Your task to perform on an android device: allow notifications from all sites in the chrome app Image 0: 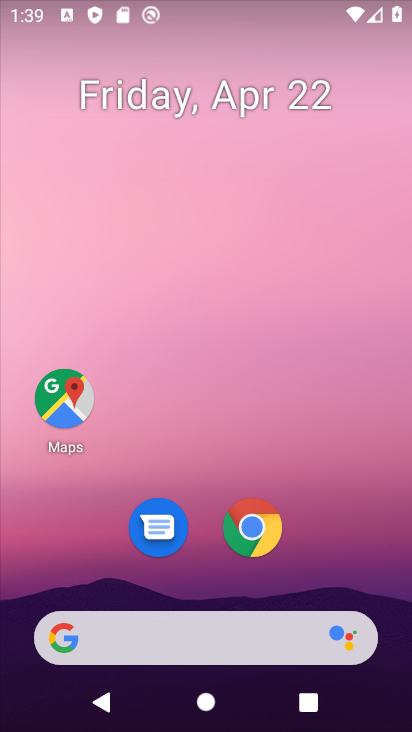
Step 0: drag from (319, 442) to (230, 9)
Your task to perform on an android device: allow notifications from all sites in the chrome app Image 1: 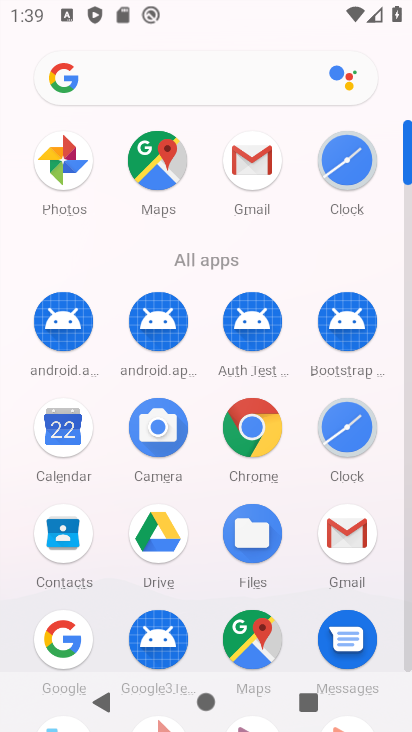
Step 1: click (257, 437)
Your task to perform on an android device: allow notifications from all sites in the chrome app Image 2: 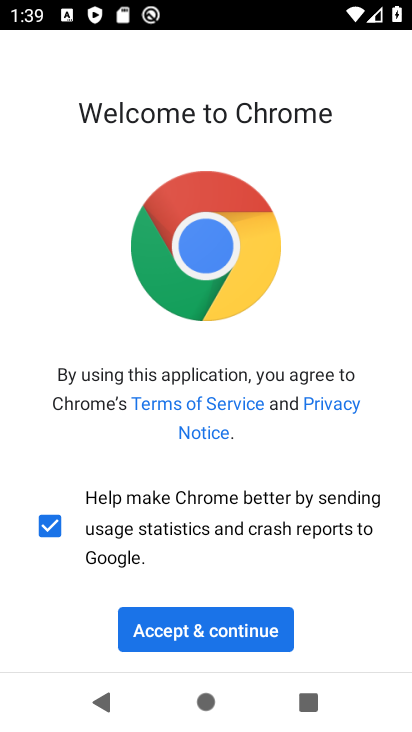
Step 2: click (180, 634)
Your task to perform on an android device: allow notifications from all sites in the chrome app Image 3: 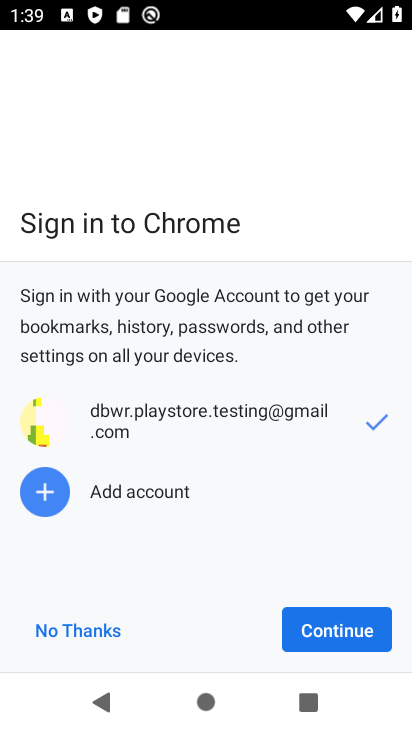
Step 3: click (89, 634)
Your task to perform on an android device: allow notifications from all sites in the chrome app Image 4: 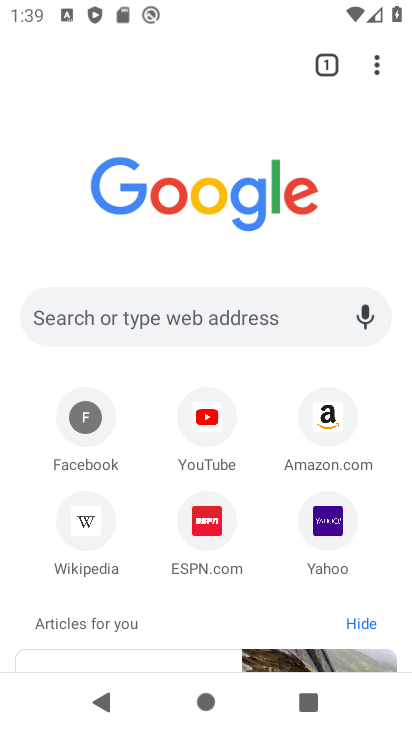
Step 4: drag from (374, 70) to (168, 545)
Your task to perform on an android device: allow notifications from all sites in the chrome app Image 5: 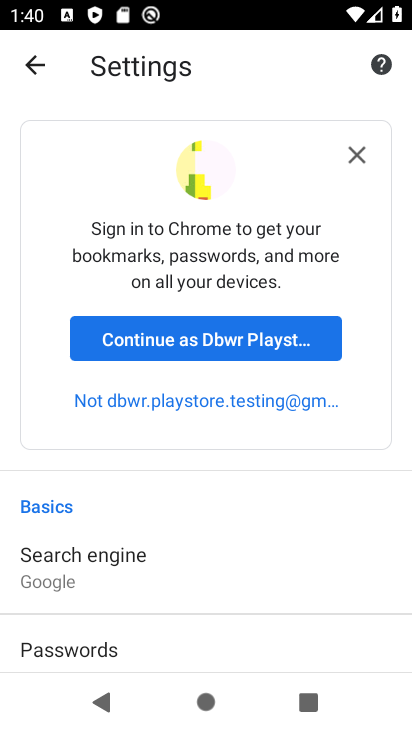
Step 5: click (170, 344)
Your task to perform on an android device: allow notifications from all sites in the chrome app Image 6: 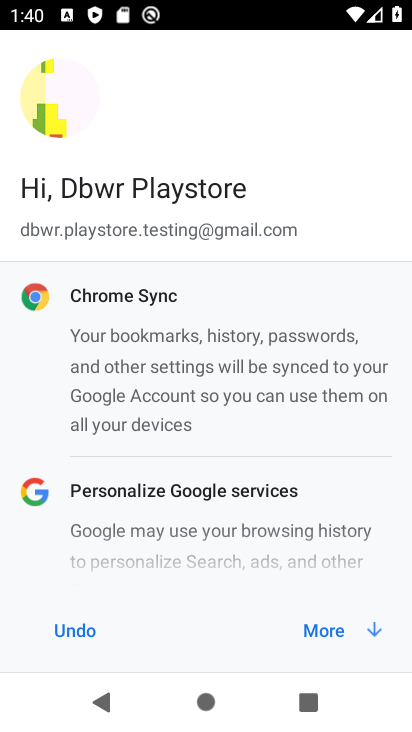
Step 6: click (311, 618)
Your task to perform on an android device: allow notifications from all sites in the chrome app Image 7: 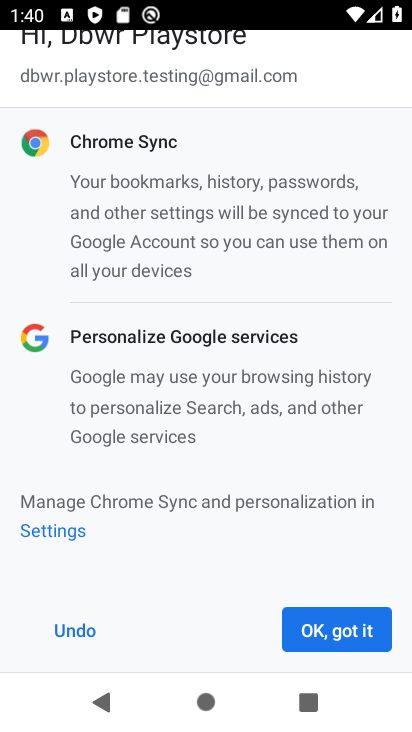
Step 7: click (314, 618)
Your task to perform on an android device: allow notifications from all sites in the chrome app Image 8: 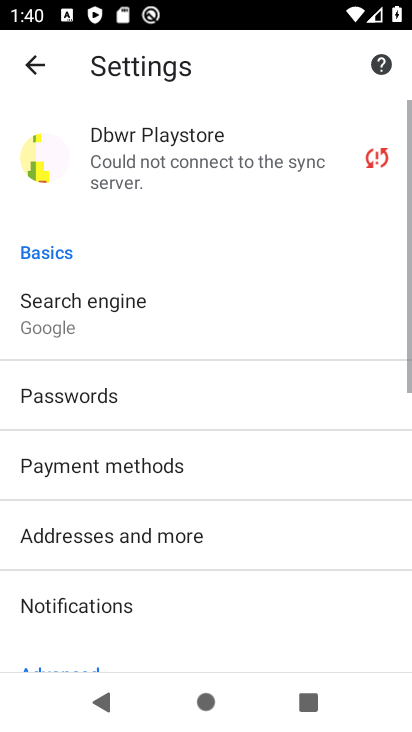
Step 8: drag from (276, 489) to (258, 161)
Your task to perform on an android device: allow notifications from all sites in the chrome app Image 9: 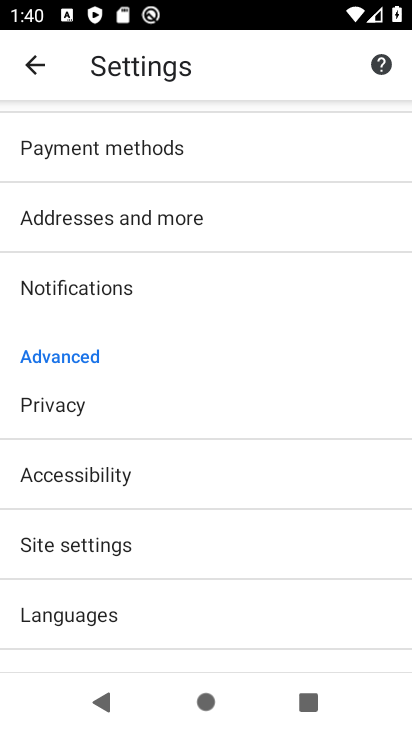
Step 9: click (90, 554)
Your task to perform on an android device: allow notifications from all sites in the chrome app Image 10: 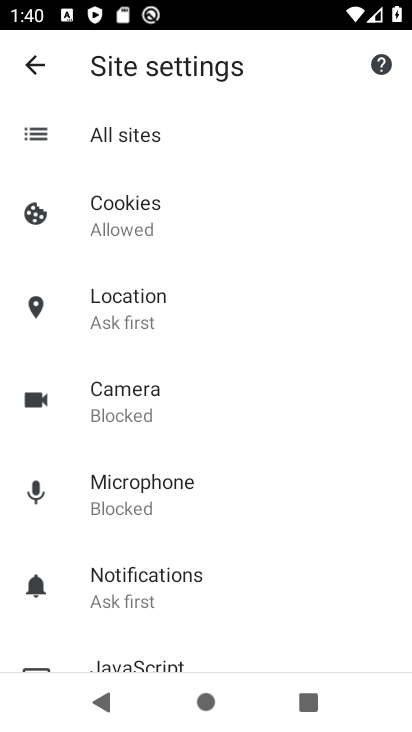
Step 10: click (148, 597)
Your task to perform on an android device: allow notifications from all sites in the chrome app Image 11: 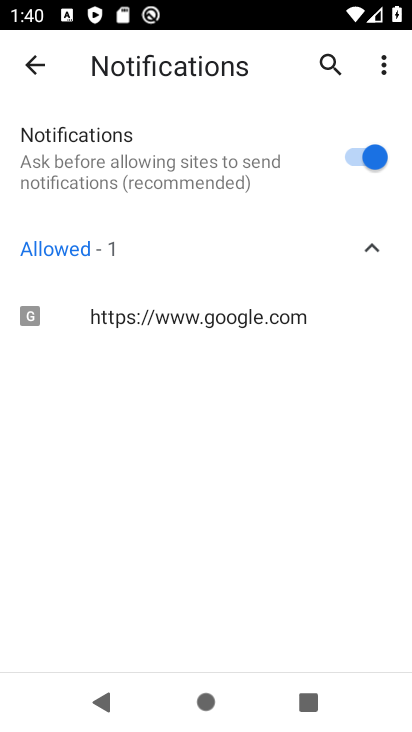
Step 11: task complete